Your task to perform on an android device: Search for pizza restaurants on Maps Image 0: 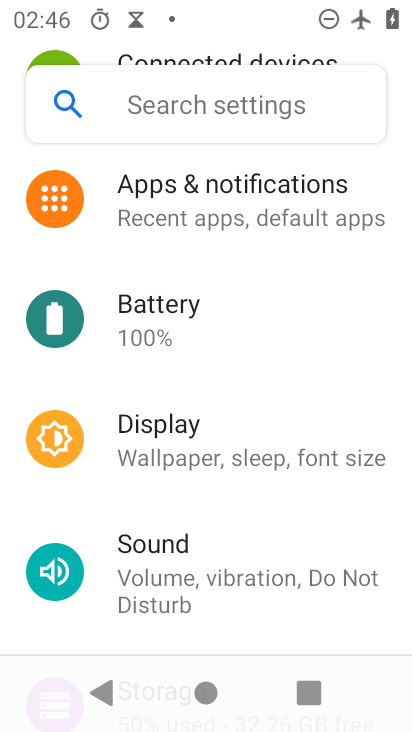
Step 0: press home button
Your task to perform on an android device: Search for pizza restaurants on Maps Image 1: 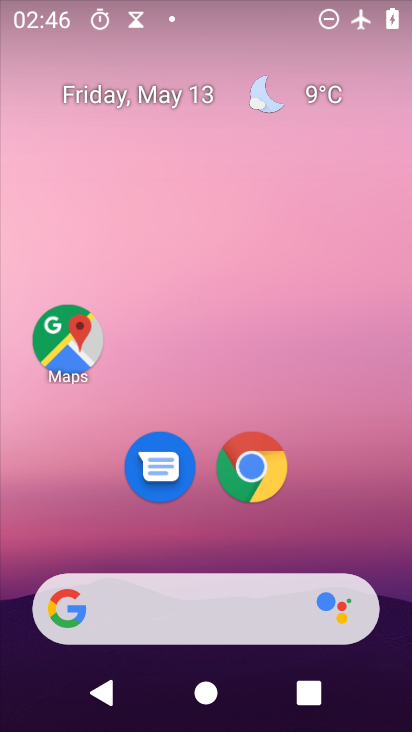
Step 1: click (60, 341)
Your task to perform on an android device: Search for pizza restaurants on Maps Image 2: 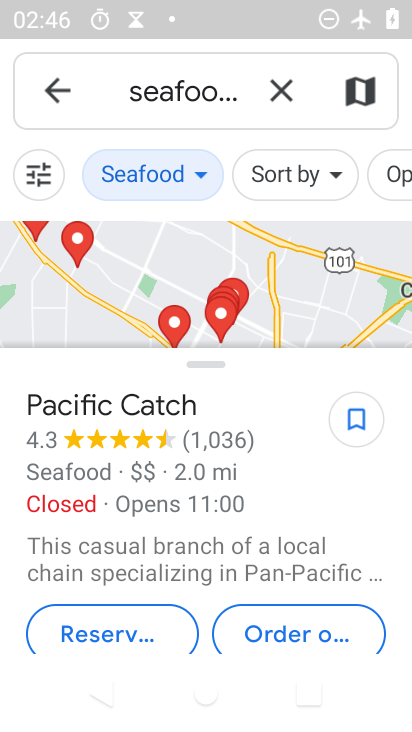
Step 2: click (266, 89)
Your task to perform on an android device: Search for pizza restaurants on Maps Image 3: 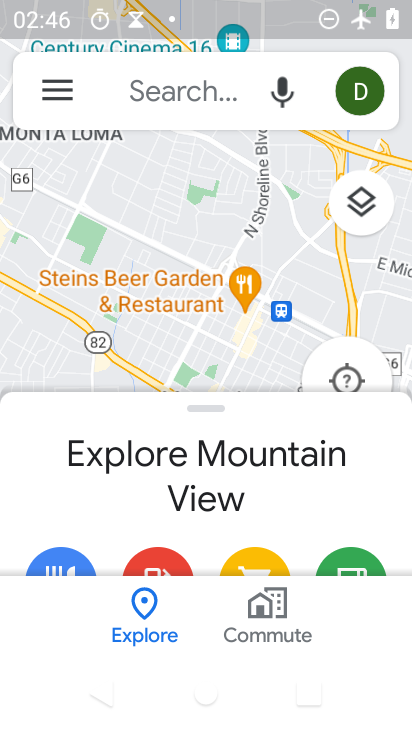
Step 3: click (195, 91)
Your task to perform on an android device: Search for pizza restaurants on Maps Image 4: 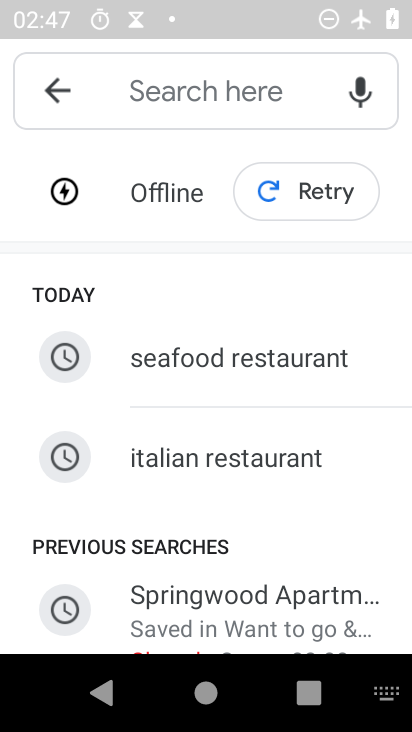
Step 4: drag from (248, 527) to (248, 249)
Your task to perform on an android device: Search for pizza restaurants on Maps Image 5: 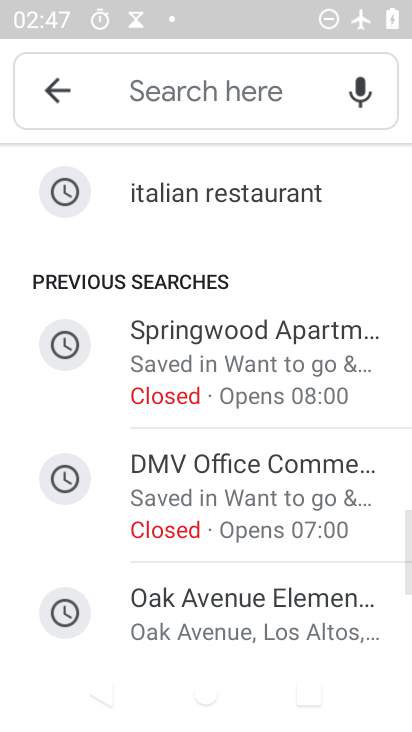
Step 5: drag from (235, 546) to (216, 314)
Your task to perform on an android device: Search for pizza restaurants on Maps Image 6: 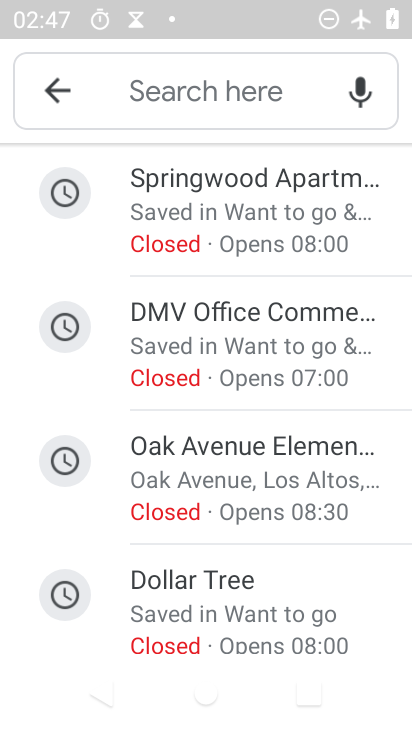
Step 6: click (220, 91)
Your task to perform on an android device: Search for pizza restaurants on Maps Image 7: 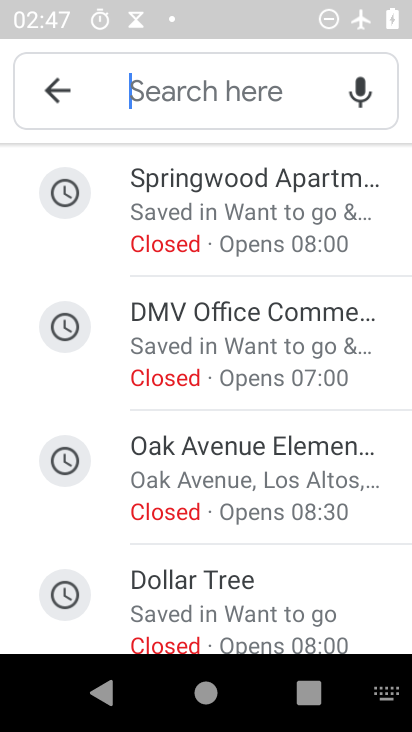
Step 7: type "pizza restaurants"
Your task to perform on an android device: Search for pizza restaurants on Maps Image 8: 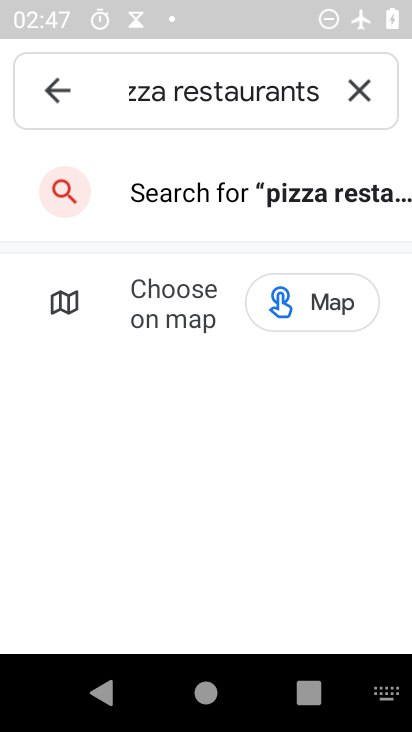
Step 8: click (254, 207)
Your task to perform on an android device: Search for pizza restaurants on Maps Image 9: 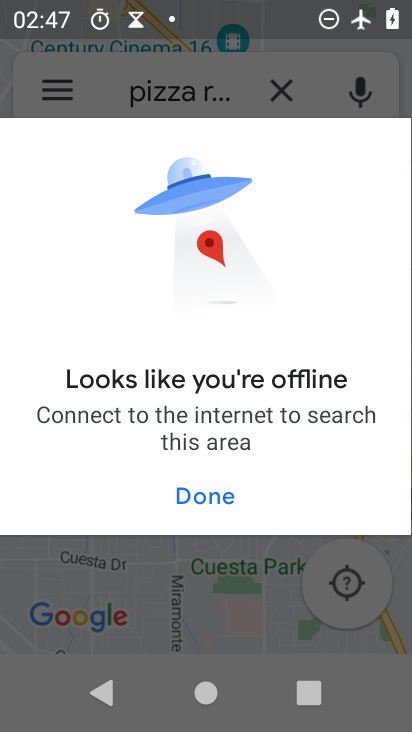
Step 9: task complete